Your task to perform on an android device: turn off picture-in-picture Image 0: 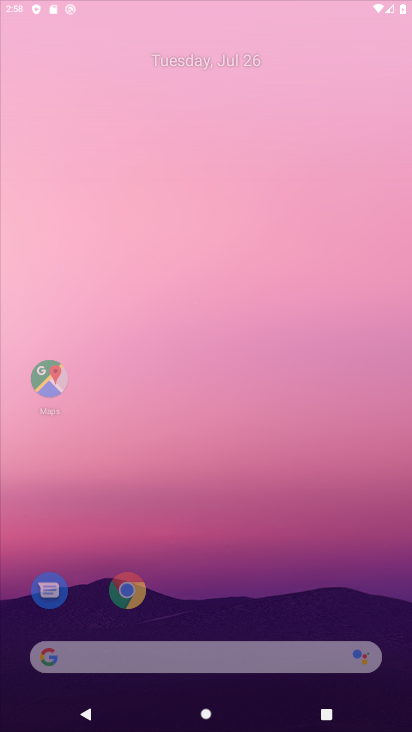
Step 0: click (401, 252)
Your task to perform on an android device: turn off picture-in-picture Image 1: 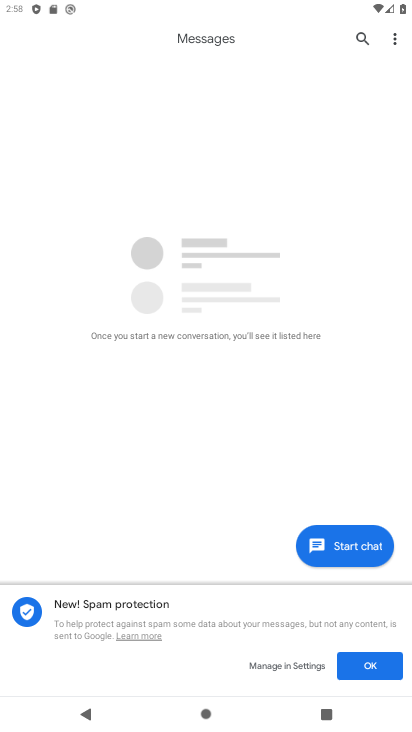
Step 1: press home button
Your task to perform on an android device: turn off picture-in-picture Image 2: 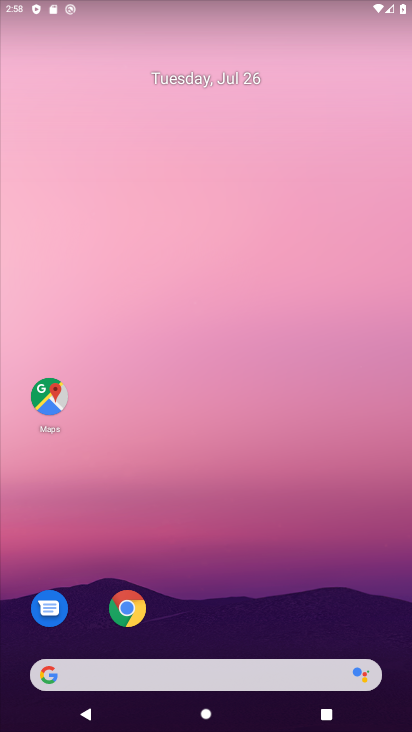
Step 2: click (130, 620)
Your task to perform on an android device: turn off picture-in-picture Image 3: 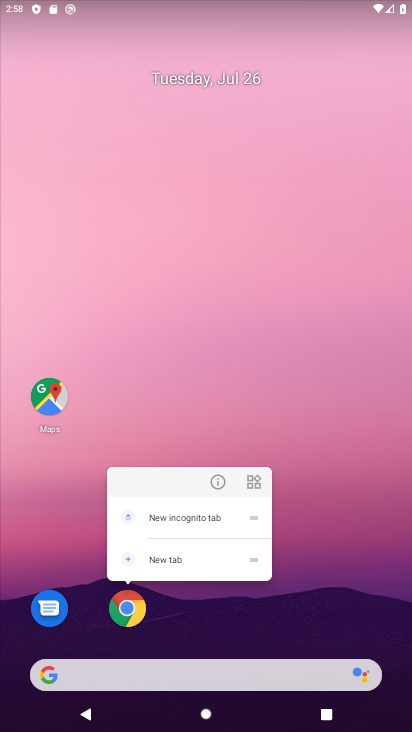
Step 3: click (219, 469)
Your task to perform on an android device: turn off picture-in-picture Image 4: 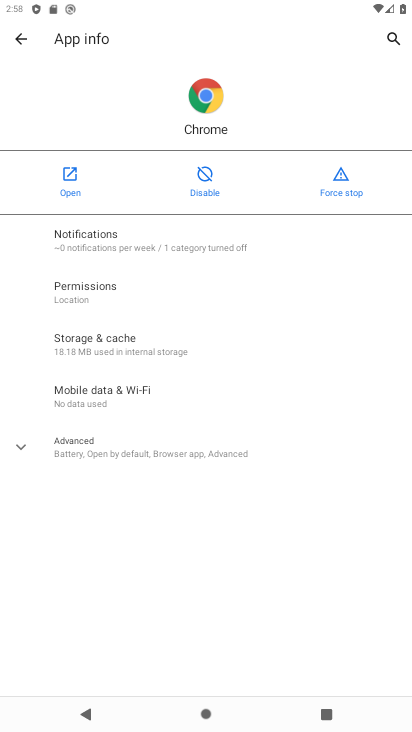
Step 4: click (150, 451)
Your task to perform on an android device: turn off picture-in-picture Image 5: 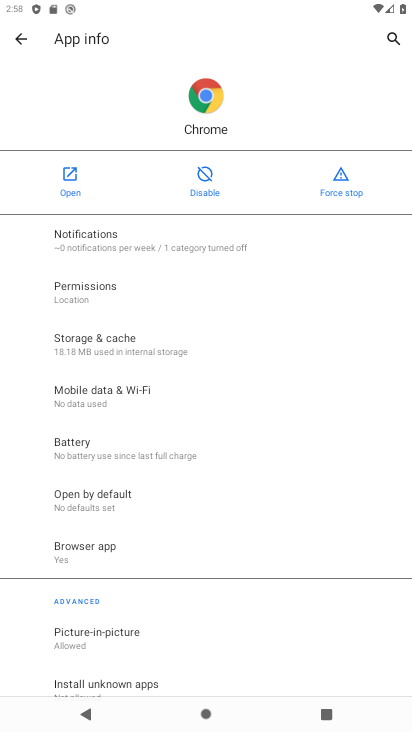
Step 5: click (114, 637)
Your task to perform on an android device: turn off picture-in-picture Image 6: 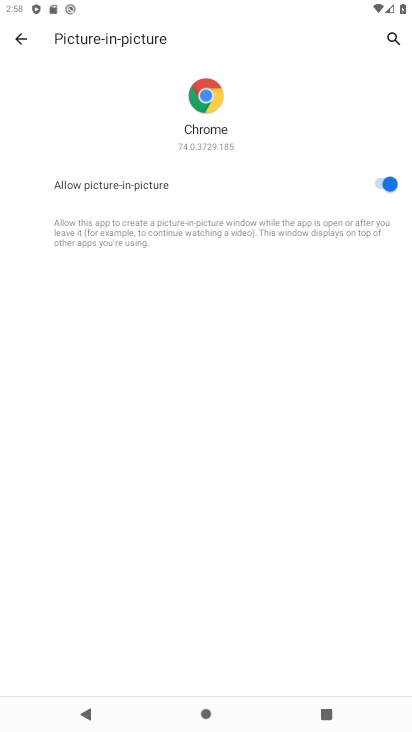
Step 6: click (362, 182)
Your task to perform on an android device: turn off picture-in-picture Image 7: 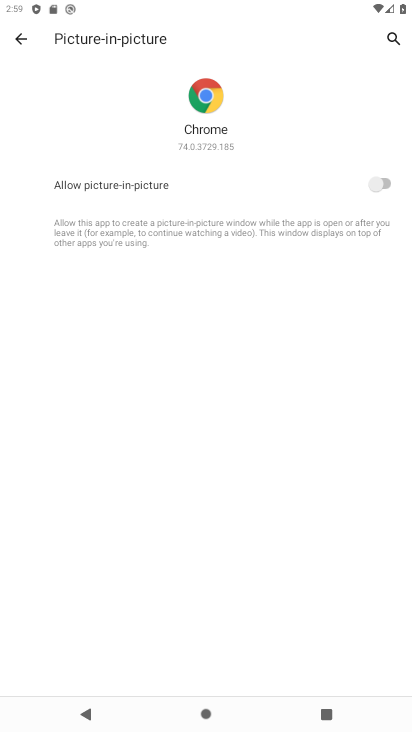
Step 7: task complete